Your task to perform on an android device: remove spam from my inbox in the gmail app Image 0: 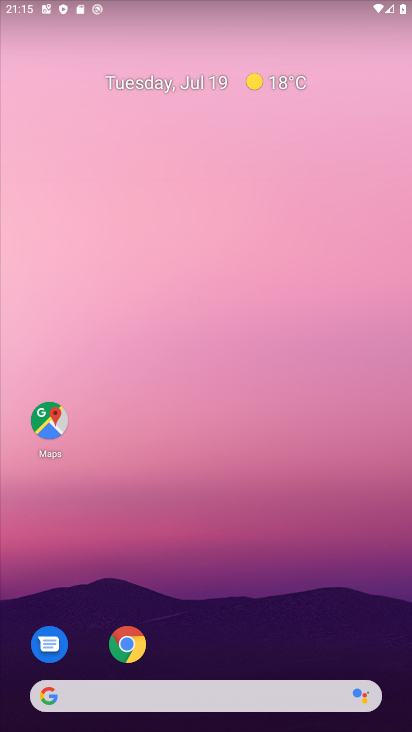
Step 0: drag from (250, 724) to (248, 226)
Your task to perform on an android device: remove spam from my inbox in the gmail app Image 1: 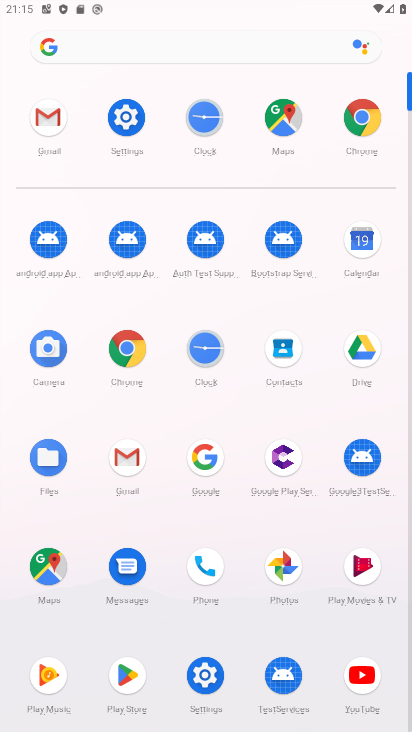
Step 1: click (130, 451)
Your task to perform on an android device: remove spam from my inbox in the gmail app Image 2: 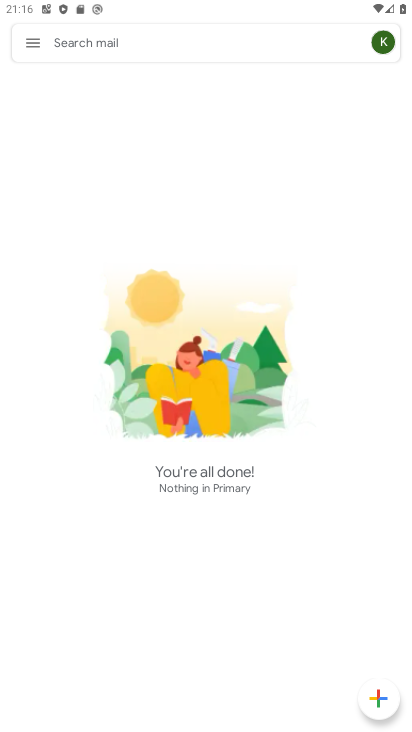
Step 2: task complete